Your task to perform on an android device: change the clock display to digital Image 0: 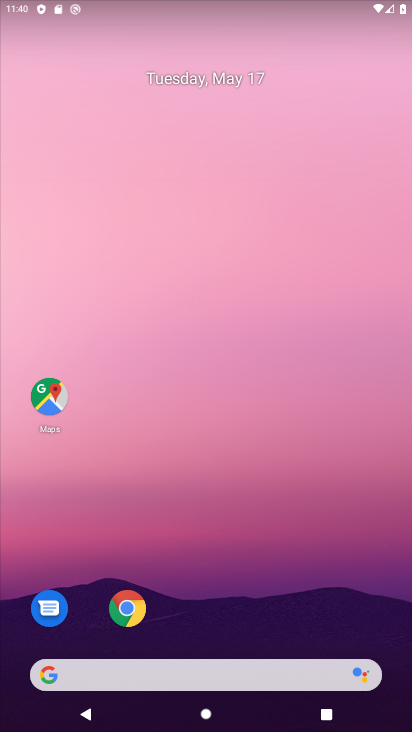
Step 0: drag from (260, 669) to (248, 155)
Your task to perform on an android device: change the clock display to digital Image 1: 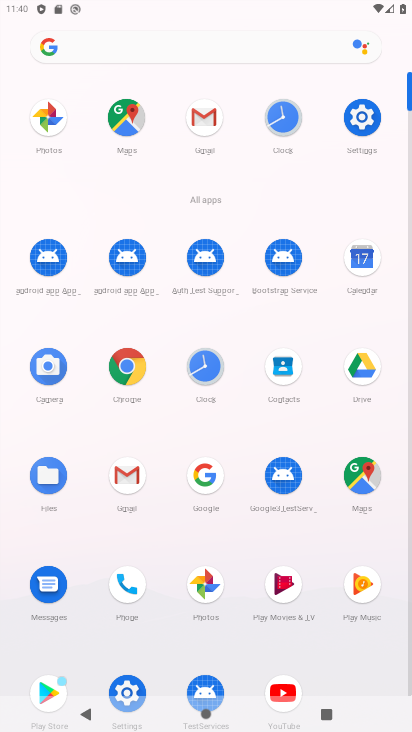
Step 1: click (204, 375)
Your task to perform on an android device: change the clock display to digital Image 2: 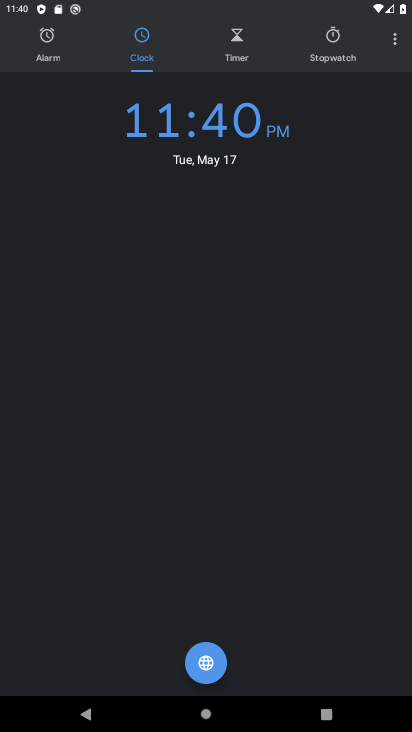
Step 2: click (397, 33)
Your task to perform on an android device: change the clock display to digital Image 3: 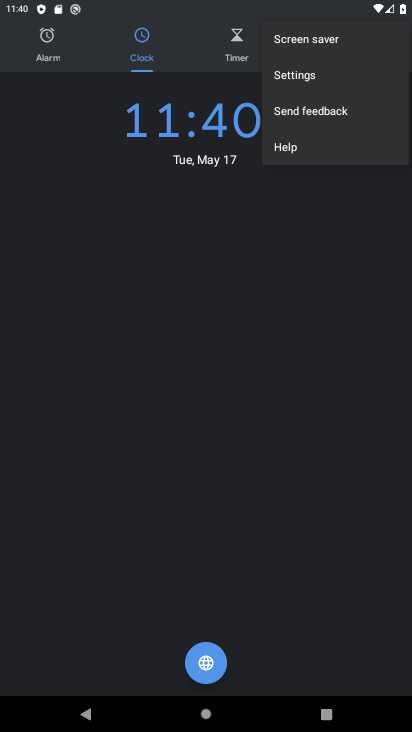
Step 3: click (315, 77)
Your task to perform on an android device: change the clock display to digital Image 4: 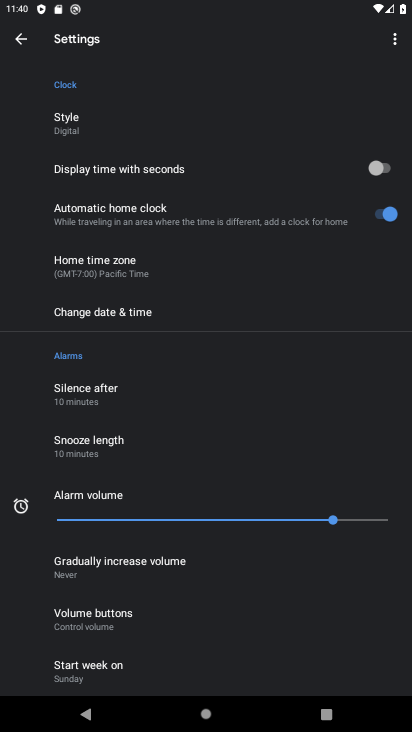
Step 4: task complete